Your task to perform on an android device: Open Youtube and go to "Your channel" Image 0: 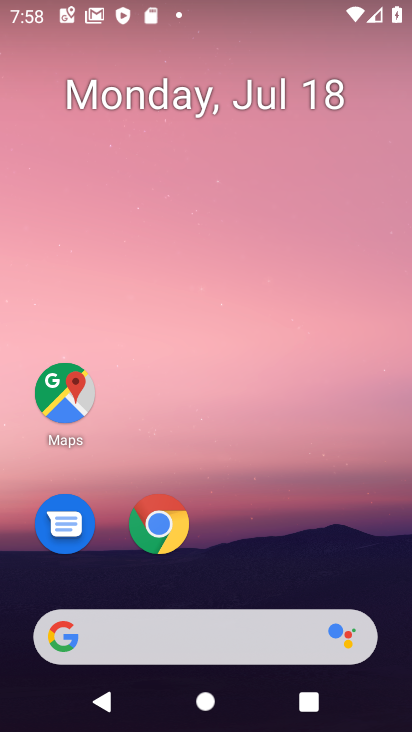
Step 0: drag from (270, 557) to (281, 103)
Your task to perform on an android device: Open Youtube and go to "Your channel" Image 1: 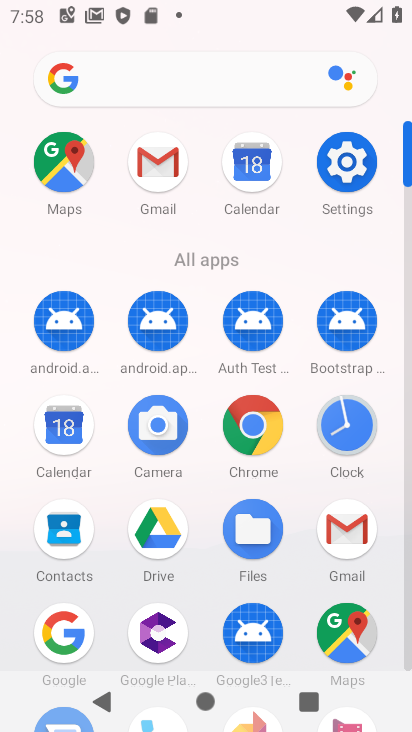
Step 1: drag from (203, 511) to (217, 143)
Your task to perform on an android device: Open Youtube and go to "Your channel" Image 2: 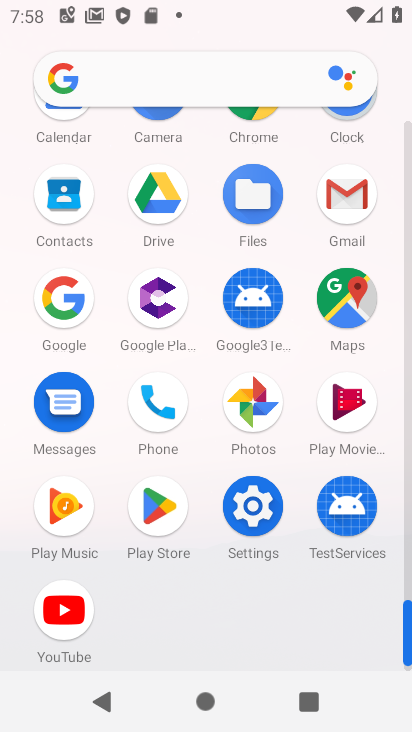
Step 2: click (69, 607)
Your task to perform on an android device: Open Youtube and go to "Your channel" Image 3: 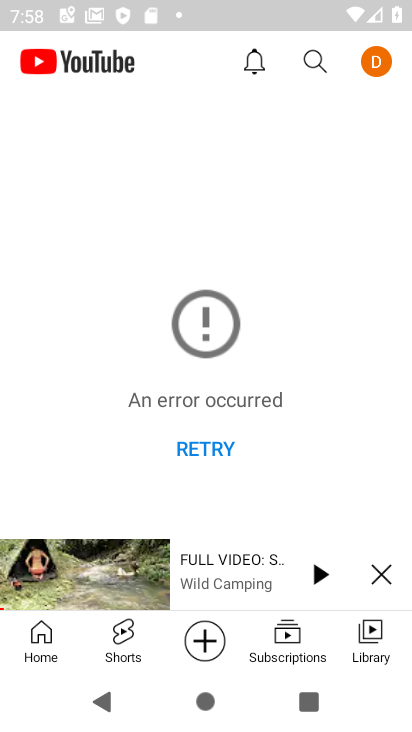
Step 3: click (378, 64)
Your task to perform on an android device: Open Youtube and go to "Your channel" Image 4: 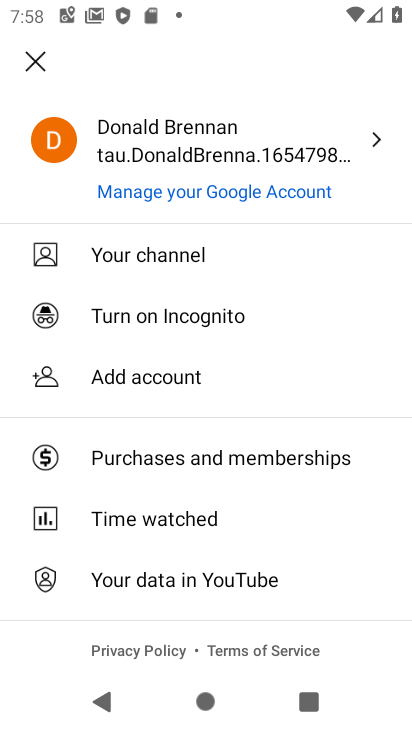
Step 4: click (184, 260)
Your task to perform on an android device: Open Youtube and go to "Your channel" Image 5: 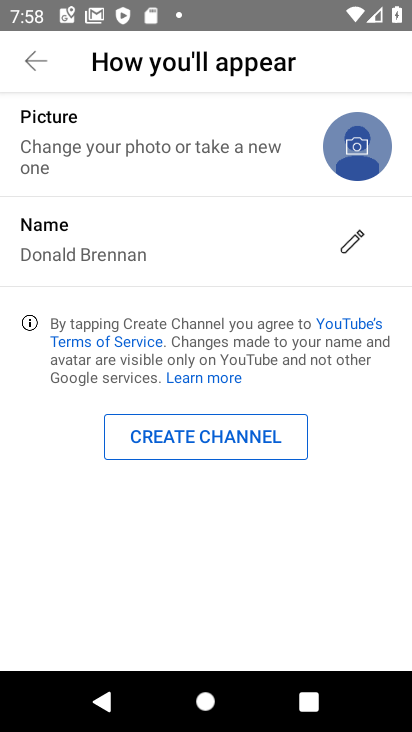
Step 5: task complete